Your task to perform on an android device: Go to Amazon Image 0: 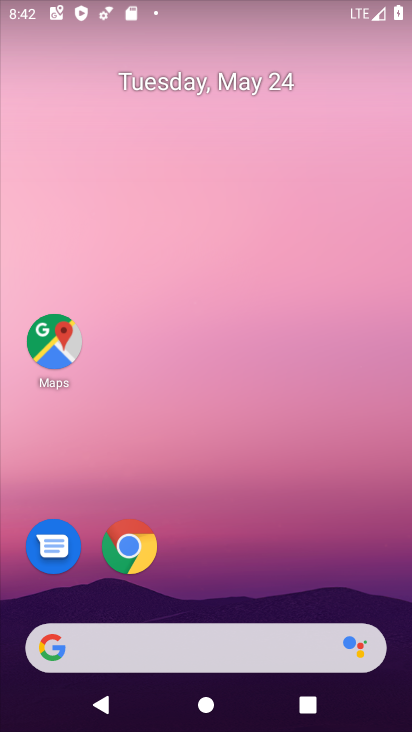
Step 0: click (143, 546)
Your task to perform on an android device: Go to Amazon Image 1: 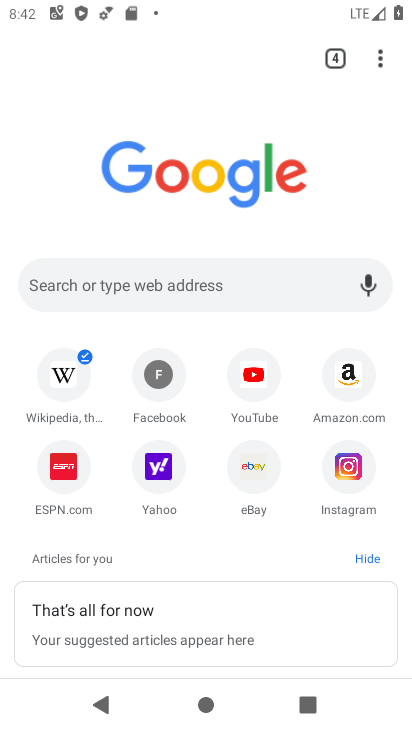
Step 1: click (349, 371)
Your task to perform on an android device: Go to Amazon Image 2: 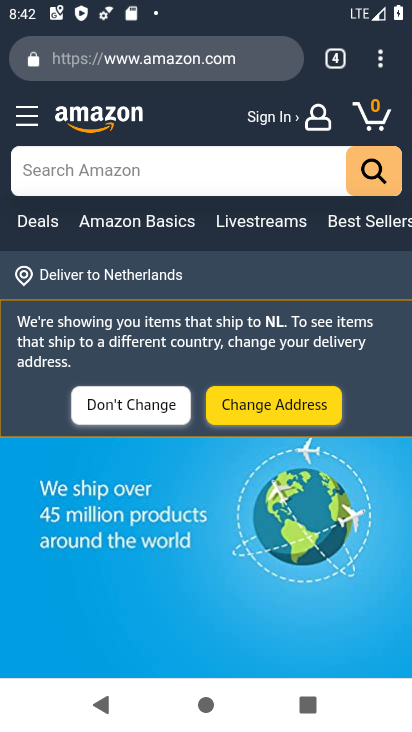
Step 2: task complete